Your task to perform on an android device: Open Youtube and go to "Your channel" Image 0: 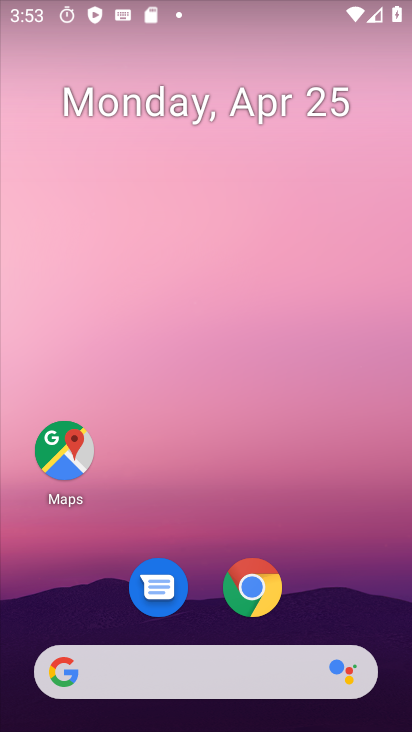
Step 0: drag from (319, 567) to (194, 98)
Your task to perform on an android device: Open Youtube and go to "Your channel" Image 1: 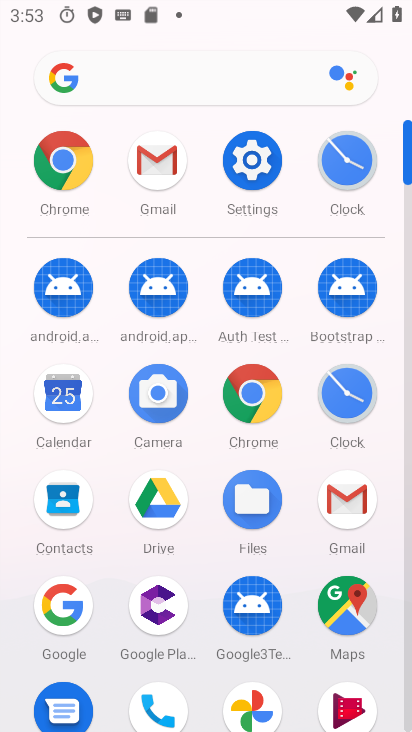
Step 1: drag from (318, 608) to (360, 294)
Your task to perform on an android device: Open Youtube and go to "Your channel" Image 2: 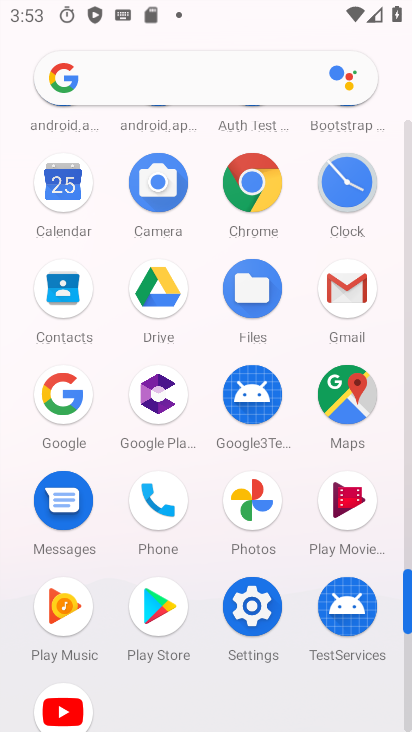
Step 2: click (70, 715)
Your task to perform on an android device: Open Youtube and go to "Your channel" Image 3: 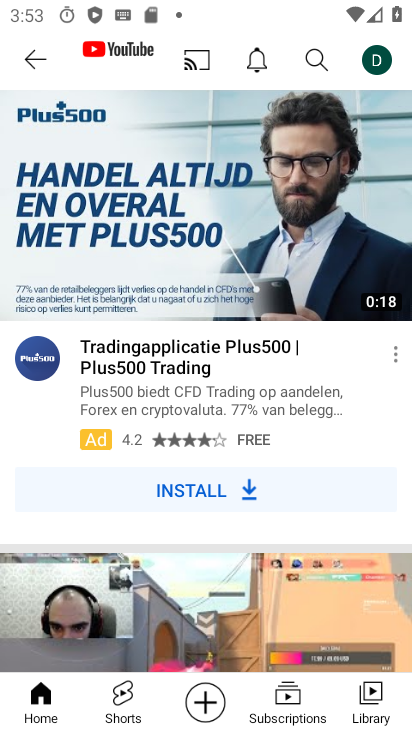
Step 3: click (373, 59)
Your task to perform on an android device: Open Youtube and go to "Your channel" Image 4: 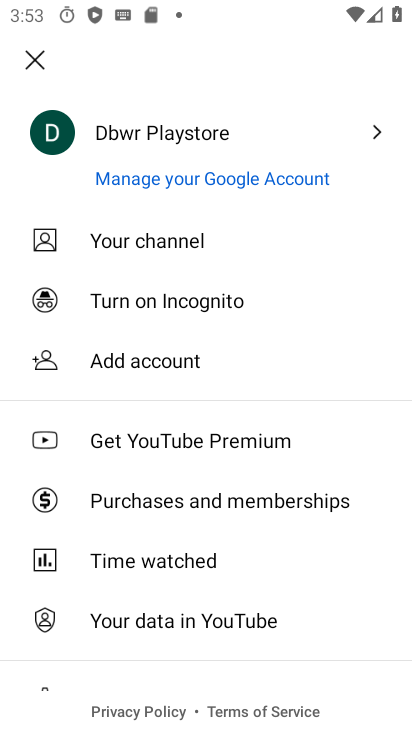
Step 4: click (182, 245)
Your task to perform on an android device: Open Youtube and go to "Your channel" Image 5: 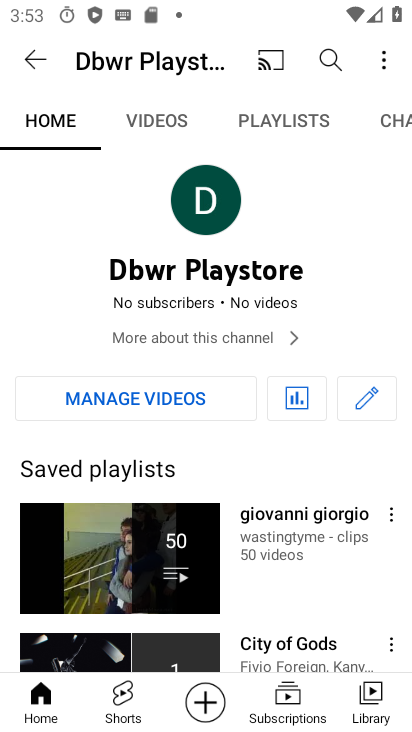
Step 5: task complete